Your task to perform on an android device: turn pop-ups on in chrome Image 0: 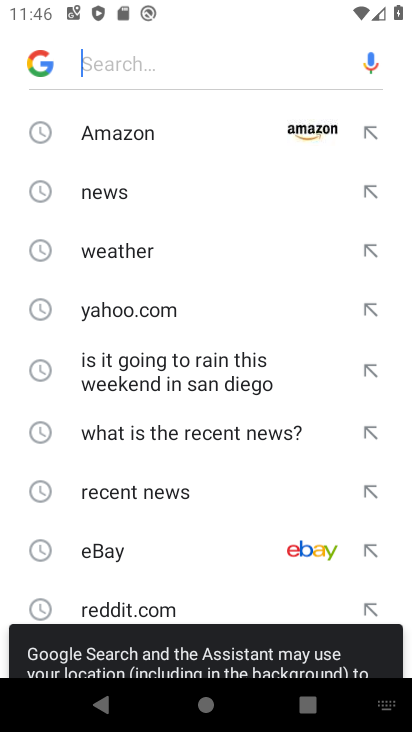
Step 0: press home button
Your task to perform on an android device: turn pop-ups on in chrome Image 1: 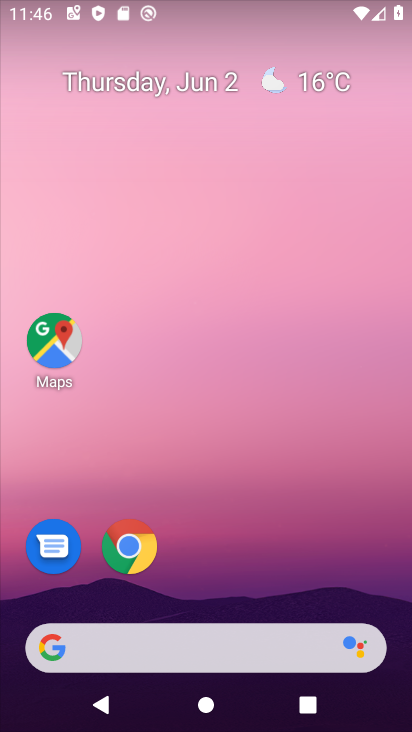
Step 1: click (133, 543)
Your task to perform on an android device: turn pop-ups on in chrome Image 2: 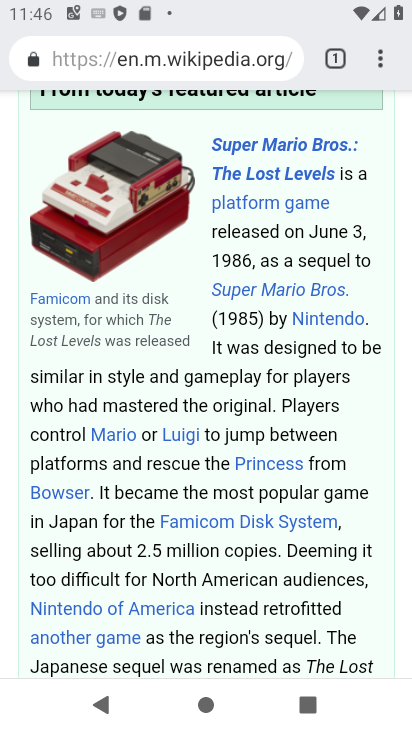
Step 2: click (377, 52)
Your task to perform on an android device: turn pop-ups on in chrome Image 3: 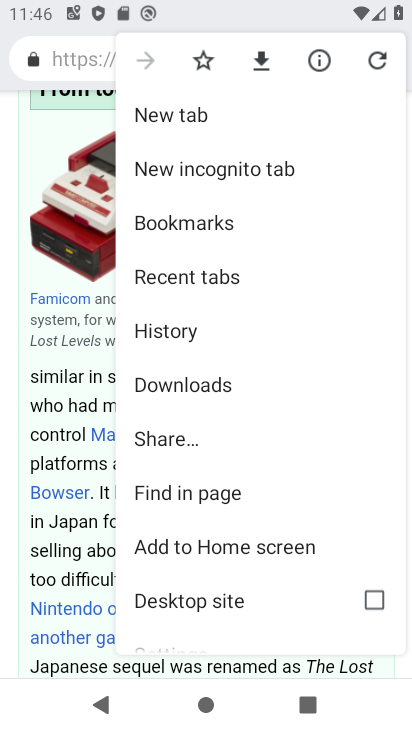
Step 3: drag from (220, 556) to (249, 105)
Your task to perform on an android device: turn pop-ups on in chrome Image 4: 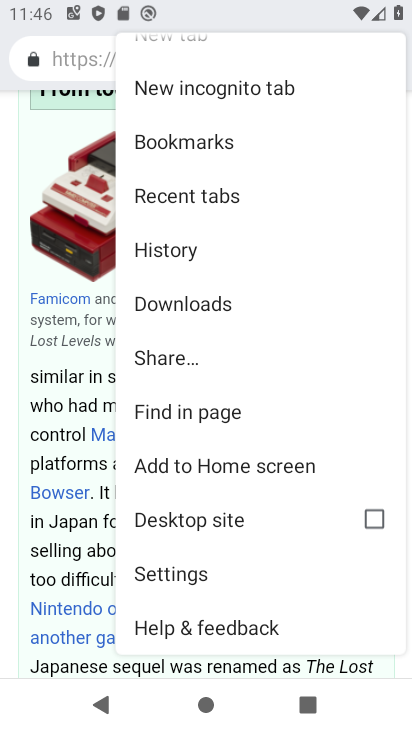
Step 4: click (193, 567)
Your task to perform on an android device: turn pop-ups on in chrome Image 5: 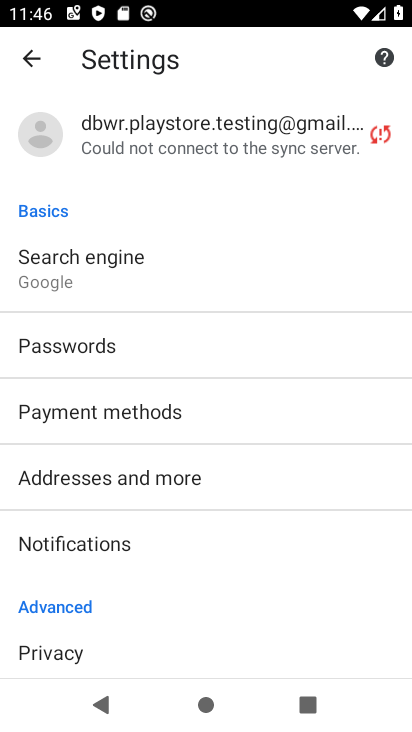
Step 5: drag from (185, 564) to (122, 337)
Your task to perform on an android device: turn pop-ups on in chrome Image 6: 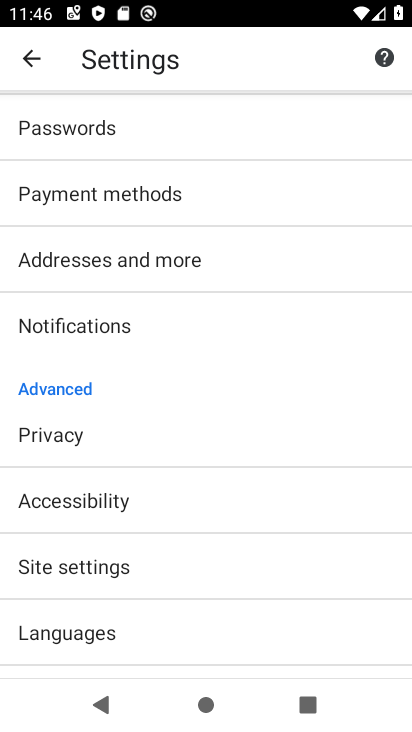
Step 6: click (69, 542)
Your task to perform on an android device: turn pop-ups on in chrome Image 7: 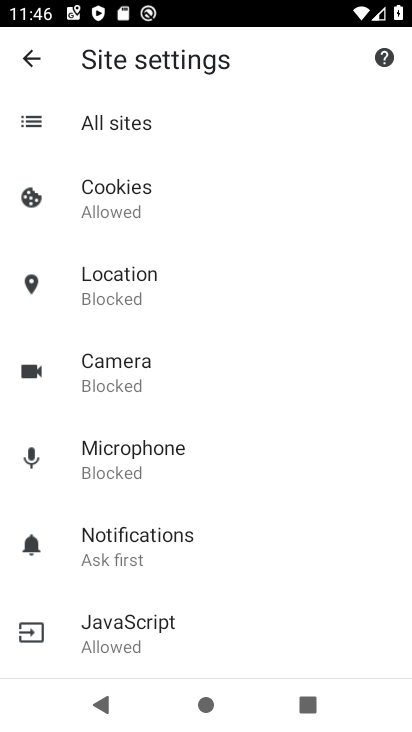
Step 7: drag from (249, 446) to (225, 221)
Your task to perform on an android device: turn pop-ups on in chrome Image 8: 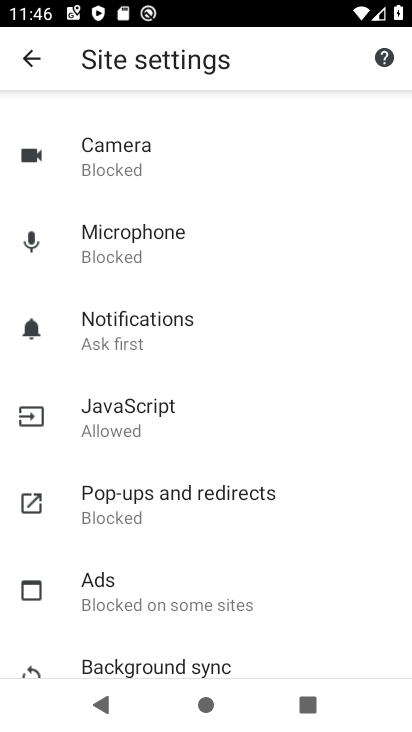
Step 8: click (147, 501)
Your task to perform on an android device: turn pop-ups on in chrome Image 9: 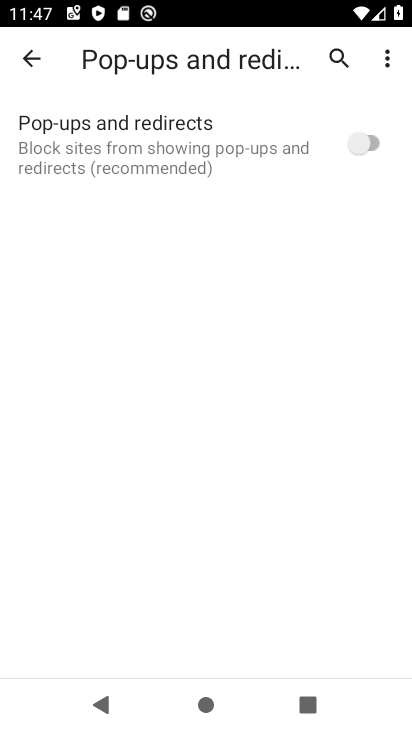
Step 9: click (361, 145)
Your task to perform on an android device: turn pop-ups on in chrome Image 10: 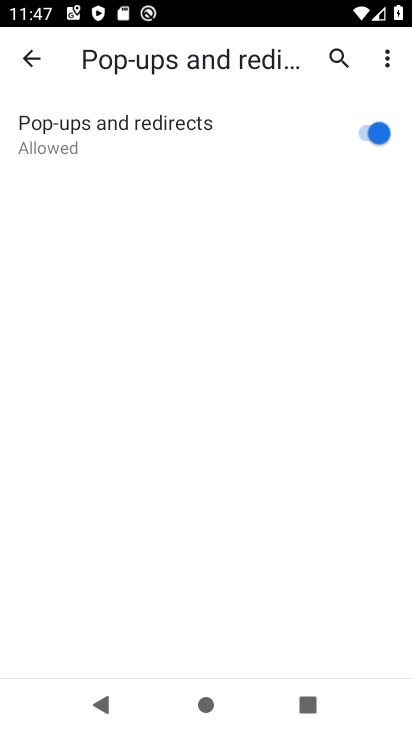
Step 10: task complete